Your task to perform on an android device: Go to ESPN.com Image 0: 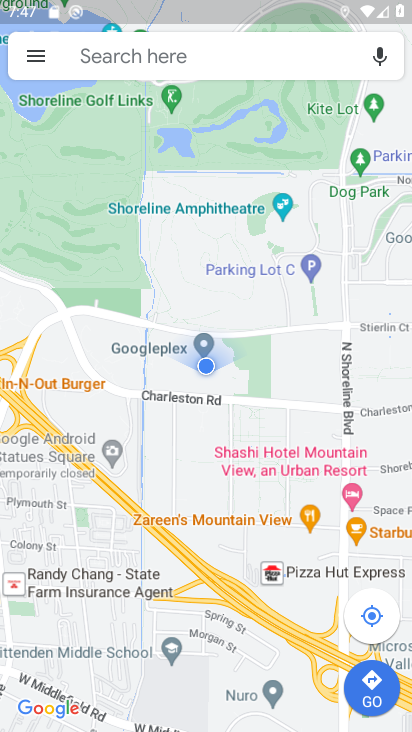
Step 0: press home button
Your task to perform on an android device: Go to ESPN.com Image 1: 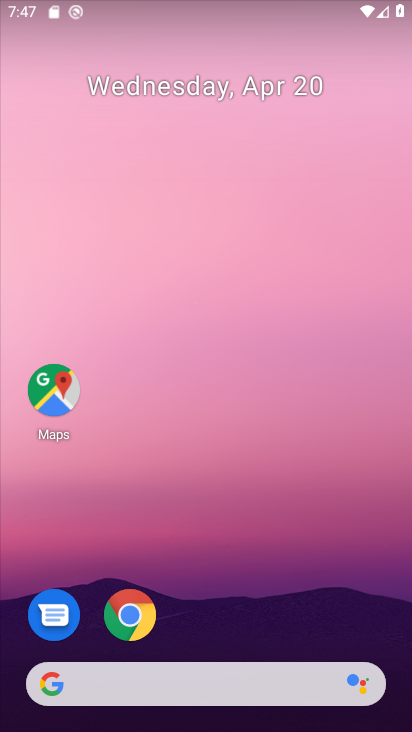
Step 1: click (129, 616)
Your task to perform on an android device: Go to ESPN.com Image 2: 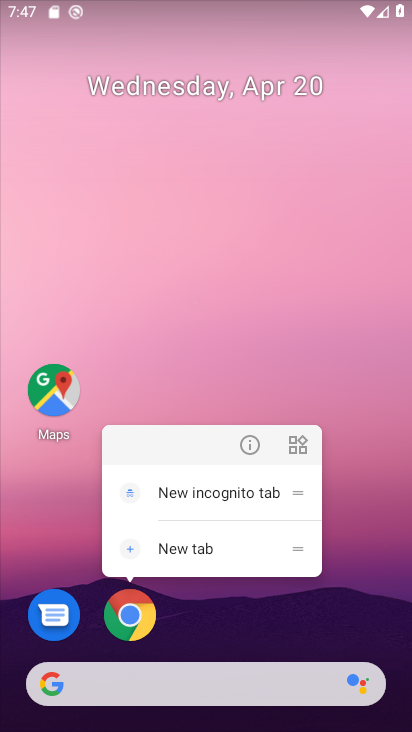
Step 2: click (131, 620)
Your task to perform on an android device: Go to ESPN.com Image 3: 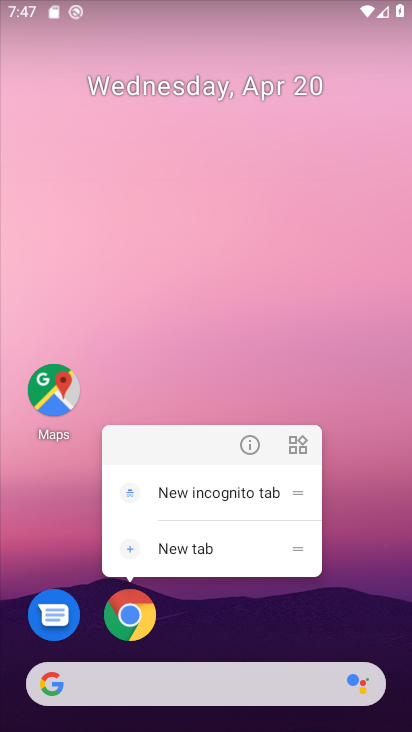
Step 3: click (131, 620)
Your task to perform on an android device: Go to ESPN.com Image 4: 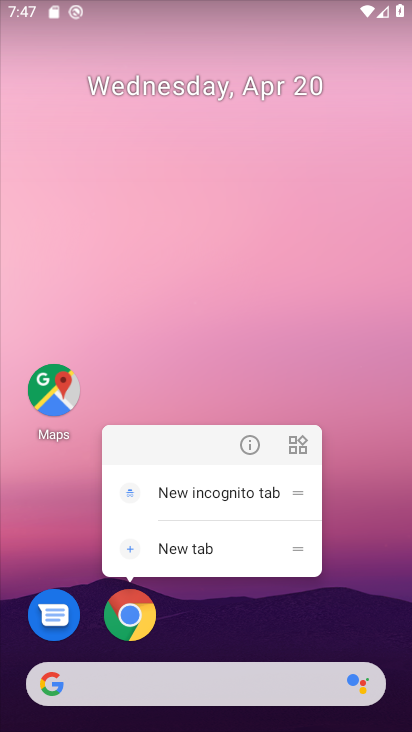
Step 4: click (131, 620)
Your task to perform on an android device: Go to ESPN.com Image 5: 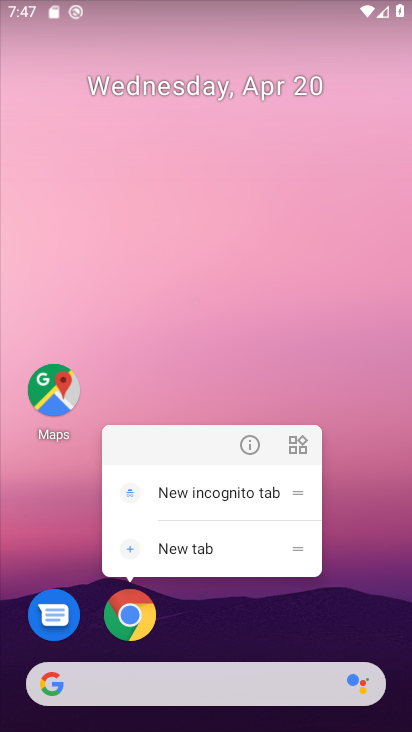
Step 5: drag from (205, 640) to (232, 32)
Your task to perform on an android device: Go to ESPN.com Image 6: 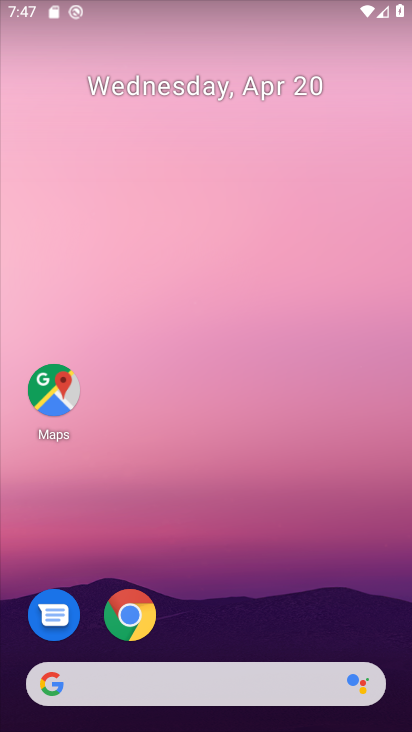
Step 6: drag from (197, 644) to (259, 0)
Your task to perform on an android device: Go to ESPN.com Image 7: 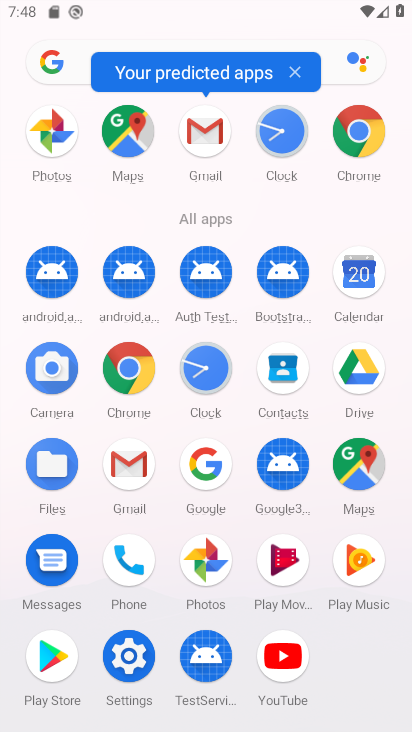
Step 7: click (124, 377)
Your task to perform on an android device: Go to ESPN.com Image 8: 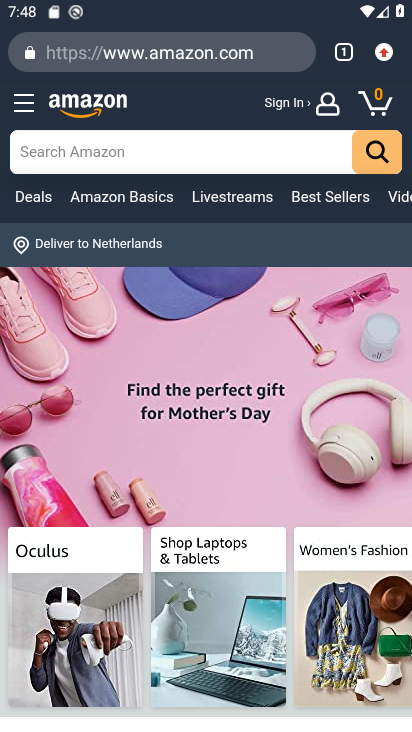
Step 8: click (165, 49)
Your task to perform on an android device: Go to ESPN.com Image 9: 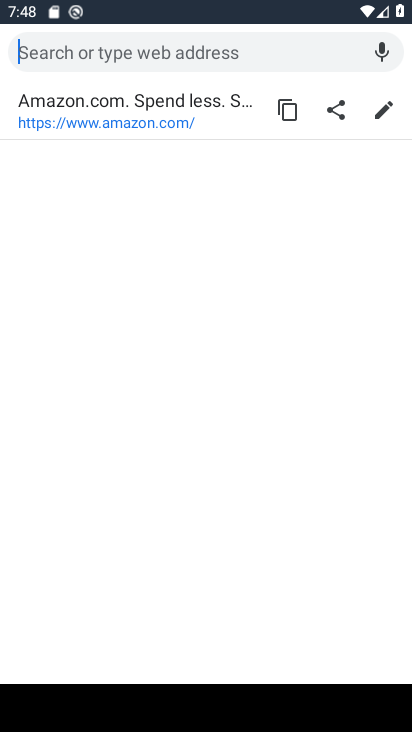
Step 9: type "ESPN.com"
Your task to perform on an android device: Go to ESPN.com Image 10: 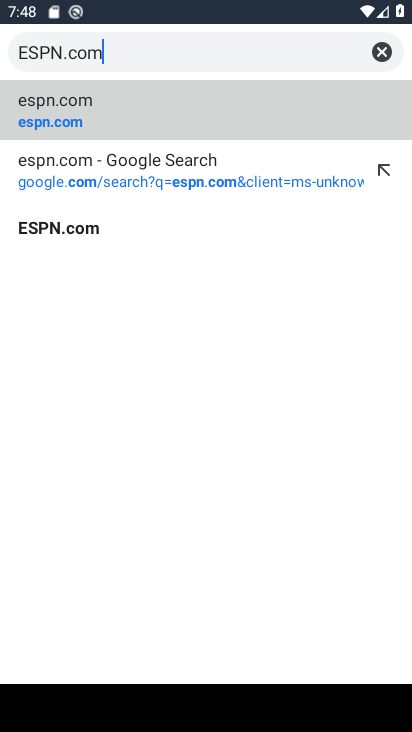
Step 10: click (78, 123)
Your task to perform on an android device: Go to ESPN.com Image 11: 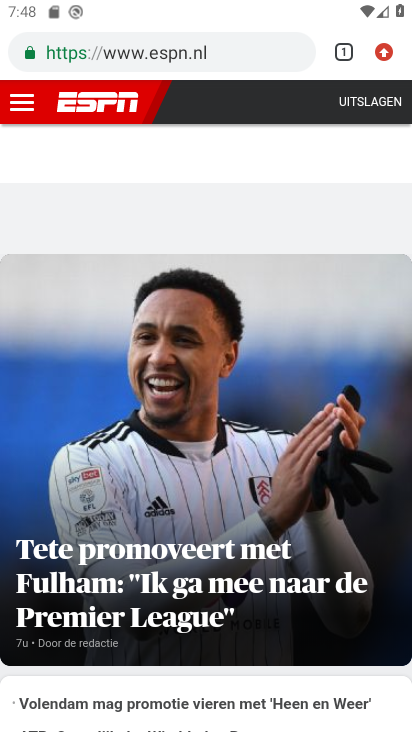
Step 11: task complete